Your task to perform on an android device: What is the news today? Image 0: 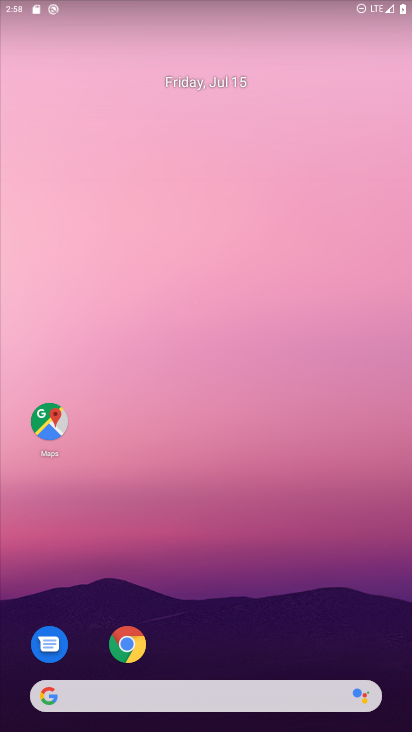
Step 0: click (153, 700)
Your task to perform on an android device: What is the news today? Image 1: 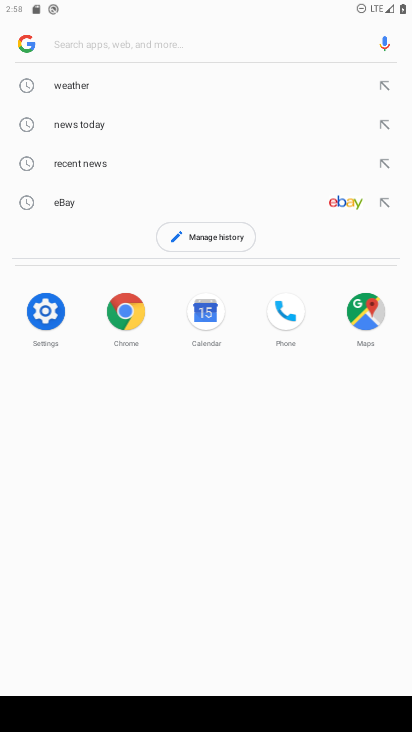
Step 1: click (116, 118)
Your task to perform on an android device: What is the news today? Image 2: 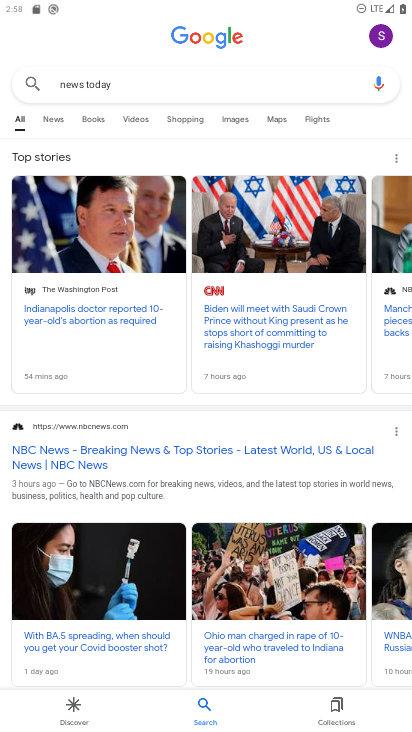
Step 2: task complete